Your task to perform on an android device: turn pop-ups off in chrome Image 0: 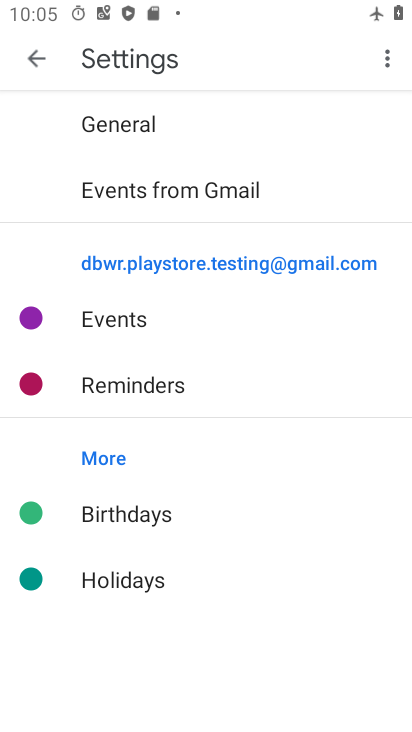
Step 0: press back button
Your task to perform on an android device: turn pop-ups off in chrome Image 1: 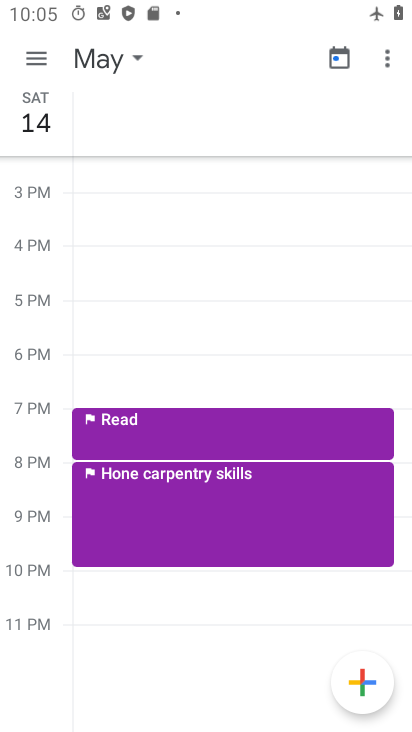
Step 1: press back button
Your task to perform on an android device: turn pop-ups off in chrome Image 2: 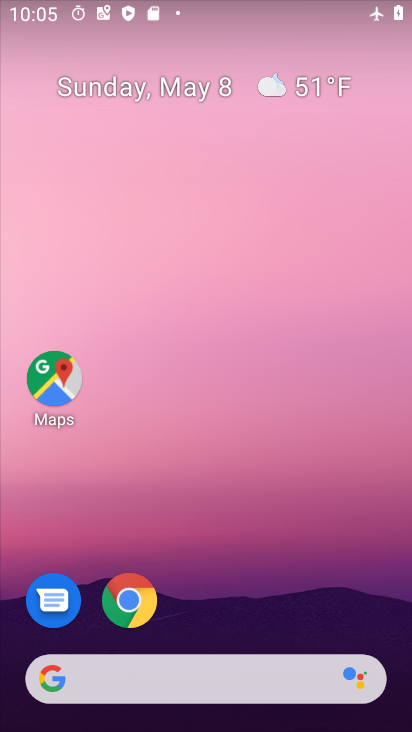
Step 2: drag from (311, 648) to (274, 14)
Your task to perform on an android device: turn pop-ups off in chrome Image 3: 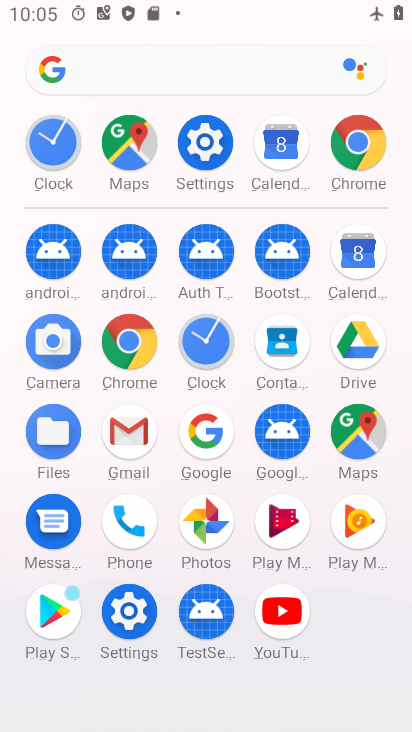
Step 3: click (360, 143)
Your task to perform on an android device: turn pop-ups off in chrome Image 4: 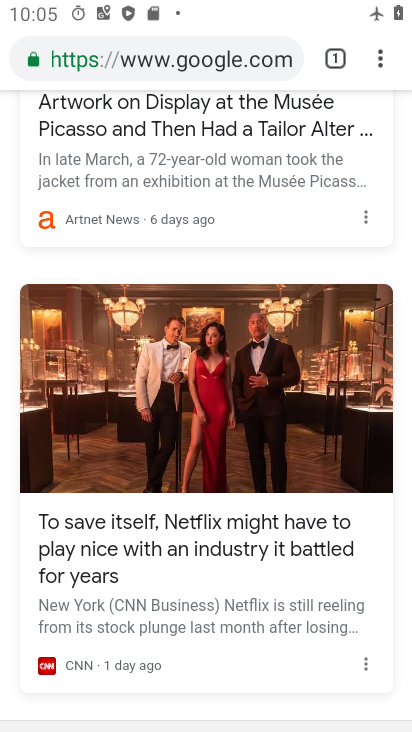
Step 4: drag from (379, 64) to (192, 634)
Your task to perform on an android device: turn pop-ups off in chrome Image 5: 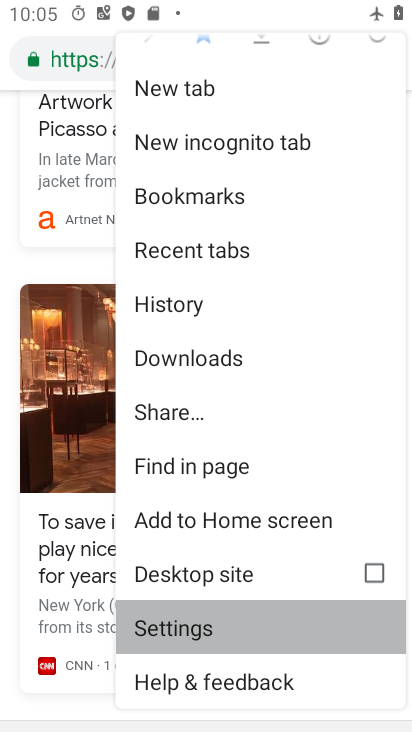
Step 5: click (192, 634)
Your task to perform on an android device: turn pop-ups off in chrome Image 6: 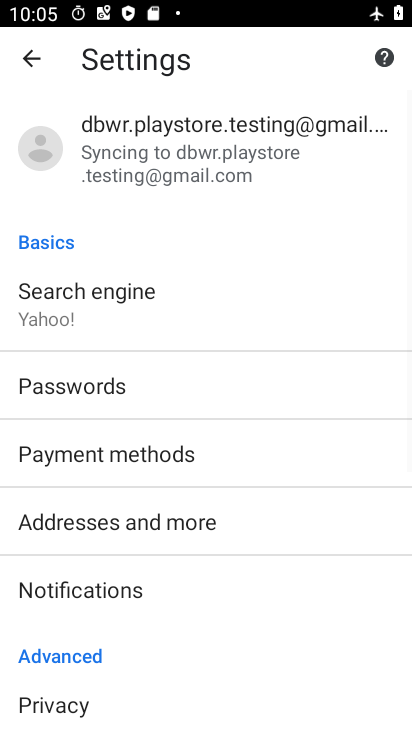
Step 6: drag from (266, 618) to (298, 188)
Your task to perform on an android device: turn pop-ups off in chrome Image 7: 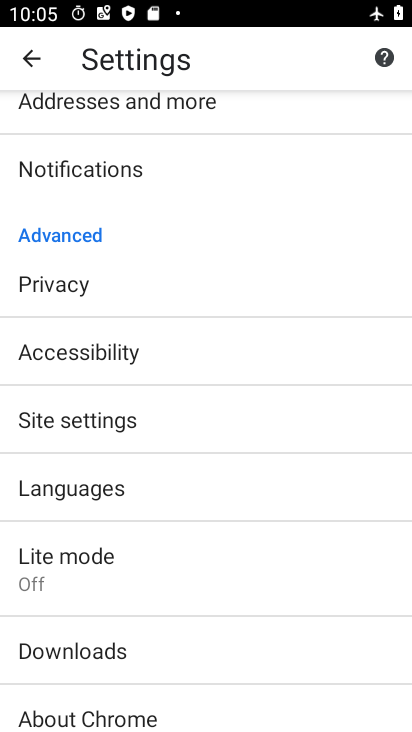
Step 7: click (151, 412)
Your task to perform on an android device: turn pop-ups off in chrome Image 8: 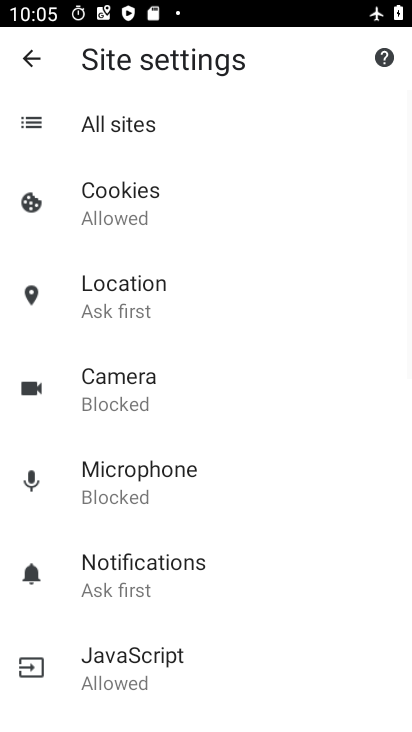
Step 8: drag from (282, 485) to (288, 148)
Your task to perform on an android device: turn pop-ups off in chrome Image 9: 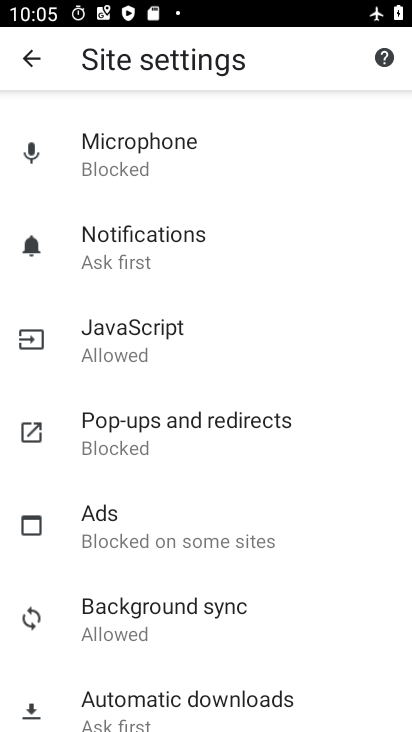
Step 9: click (233, 427)
Your task to perform on an android device: turn pop-ups off in chrome Image 10: 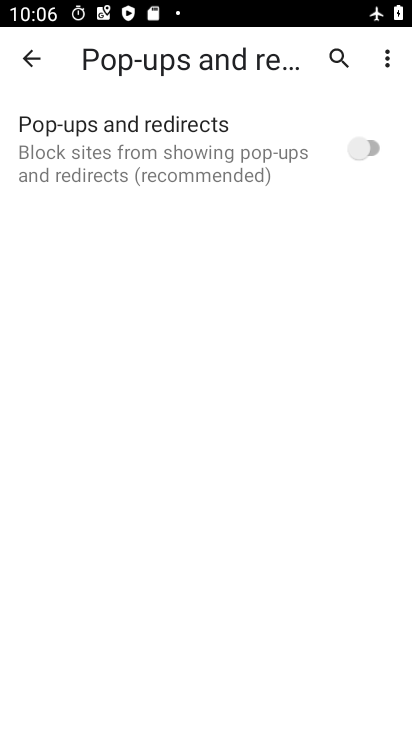
Step 10: task complete